Your task to perform on an android device: What's the weather? Image 0: 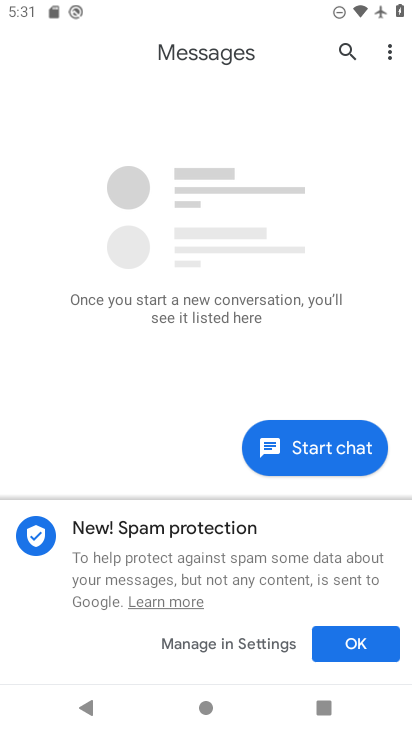
Step 0: press back button
Your task to perform on an android device: What's the weather? Image 1: 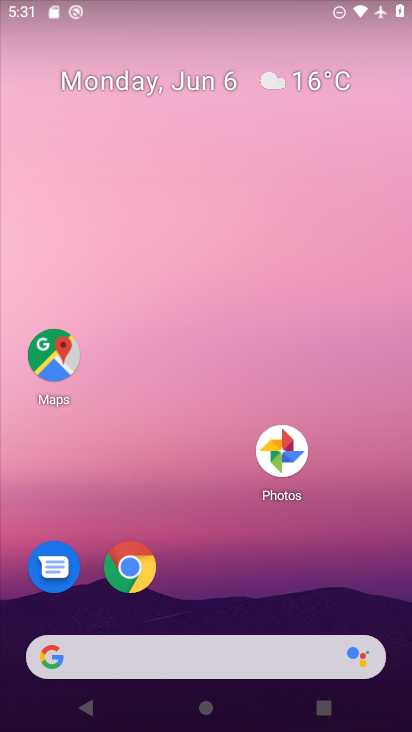
Step 1: drag from (260, 677) to (204, 223)
Your task to perform on an android device: What's the weather? Image 2: 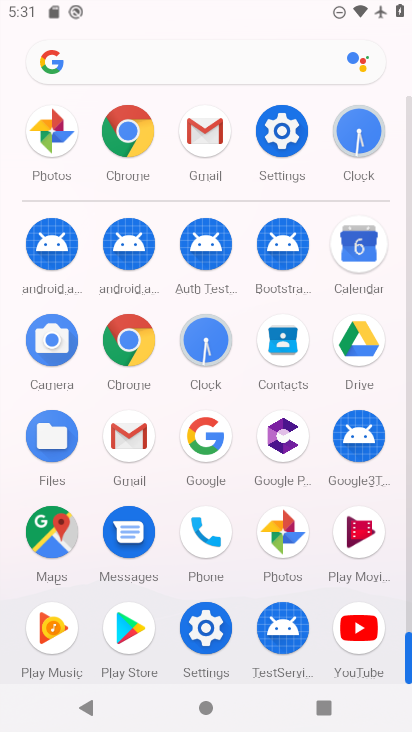
Step 2: press back button
Your task to perform on an android device: What's the weather? Image 3: 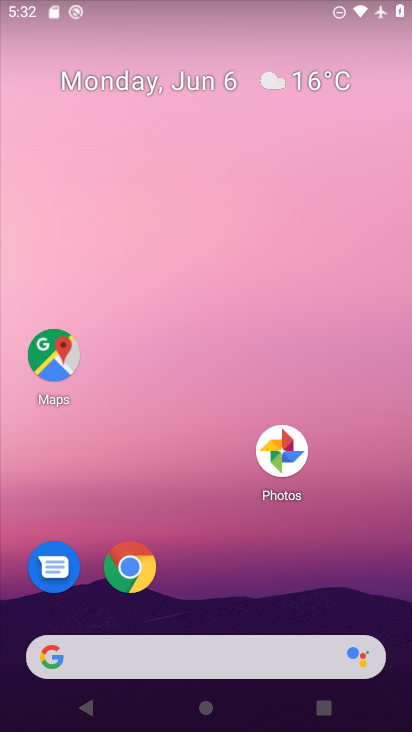
Step 3: drag from (11, 199) to (333, 325)
Your task to perform on an android device: What's the weather? Image 4: 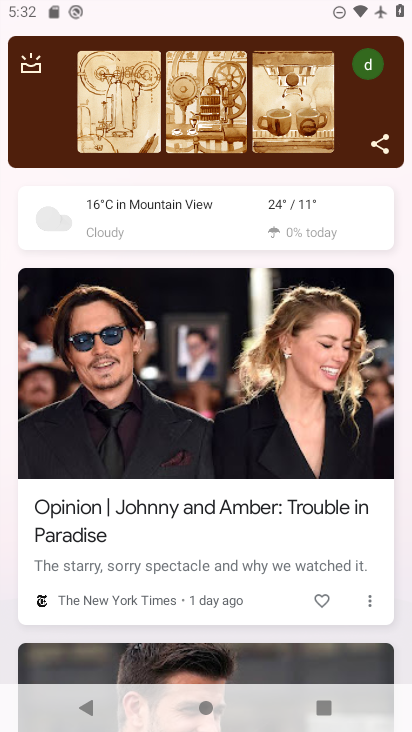
Step 4: click (148, 224)
Your task to perform on an android device: What's the weather? Image 5: 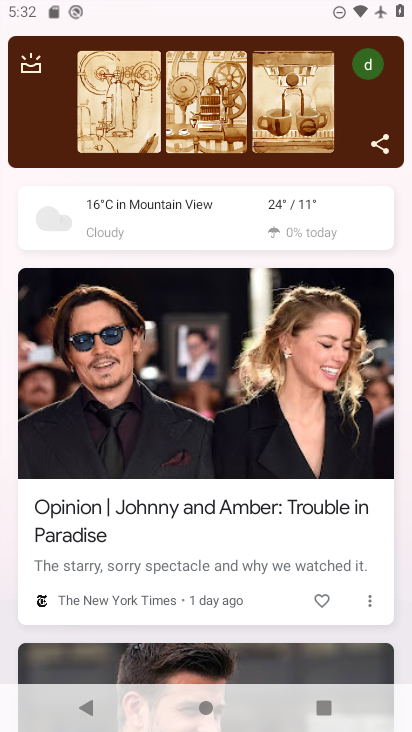
Step 5: click (148, 223)
Your task to perform on an android device: What's the weather? Image 6: 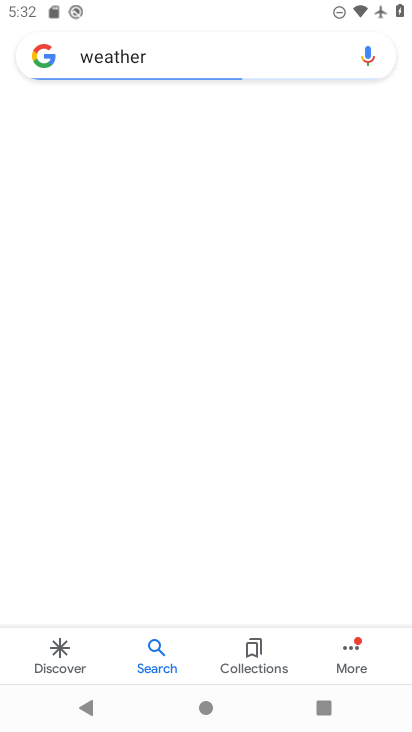
Step 6: click (146, 217)
Your task to perform on an android device: What's the weather? Image 7: 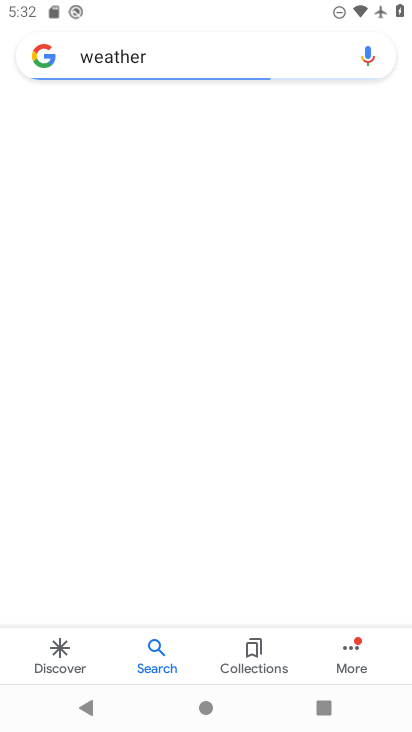
Step 7: click (146, 217)
Your task to perform on an android device: What's the weather? Image 8: 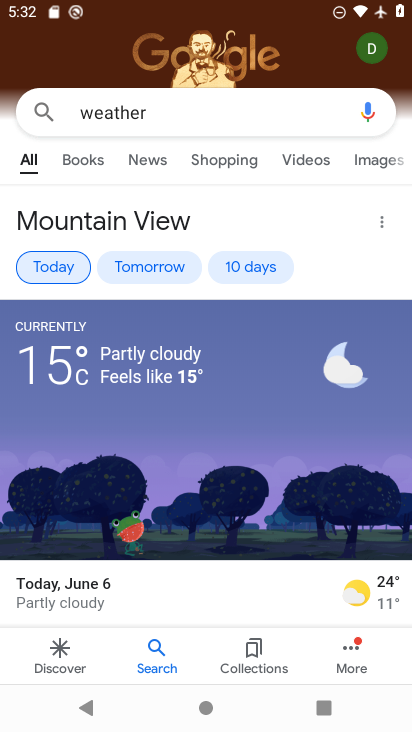
Step 8: task complete